Your task to perform on an android device: When is my next meeting? Image 0: 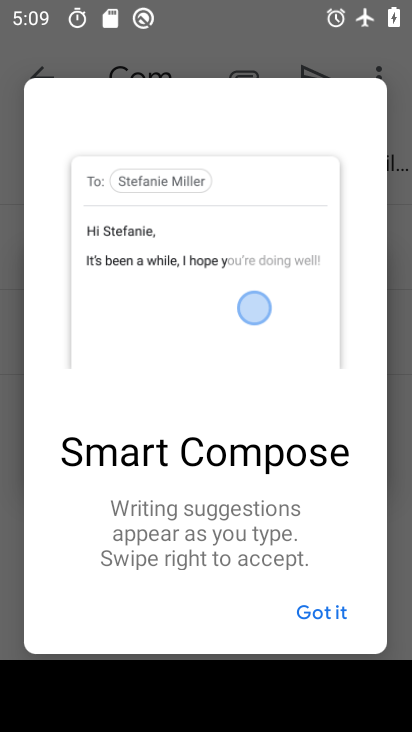
Step 0: click (326, 609)
Your task to perform on an android device: When is my next meeting? Image 1: 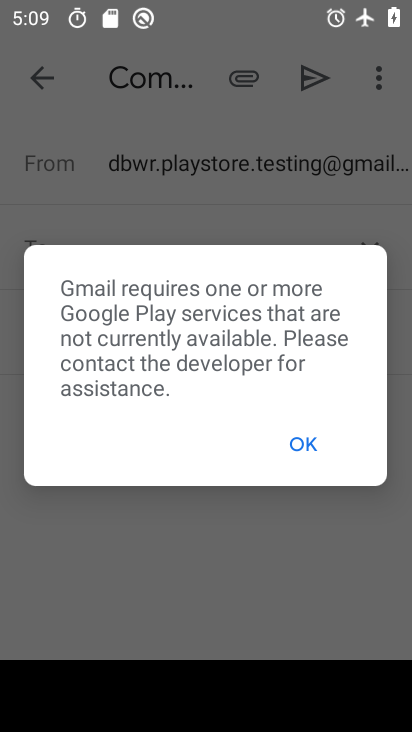
Step 1: press home button
Your task to perform on an android device: When is my next meeting? Image 2: 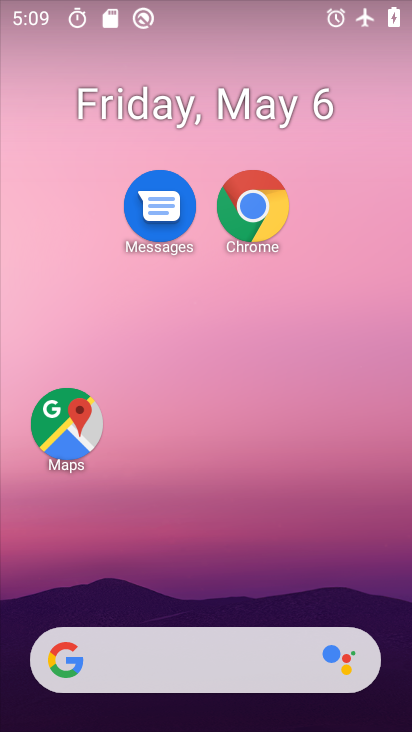
Step 2: drag from (170, 632) to (161, 215)
Your task to perform on an android device: When is my next meeting? Image 3: 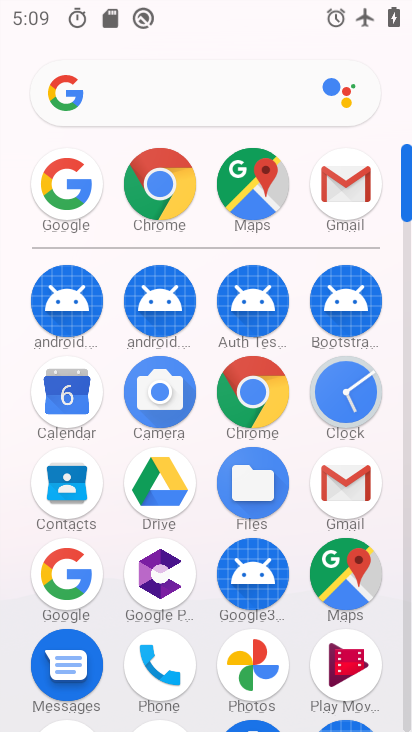
Step 3: click (54, 400)
Your task to perform on an android device: When is my next meeting? Image 4: 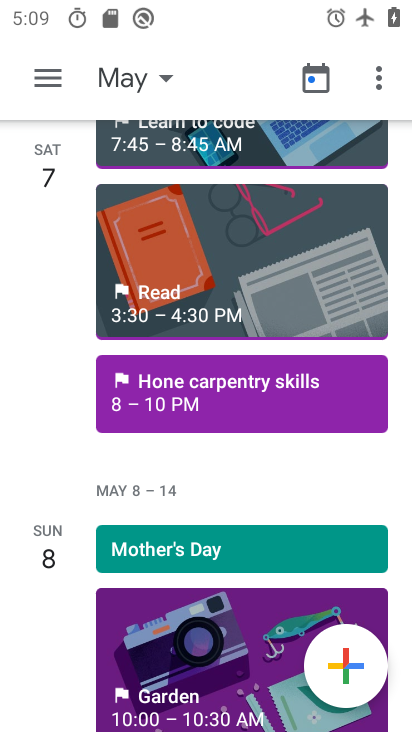
Step 4: click (40, 82)
Your task to perform on an android device: When is my next meeting? Image 5: 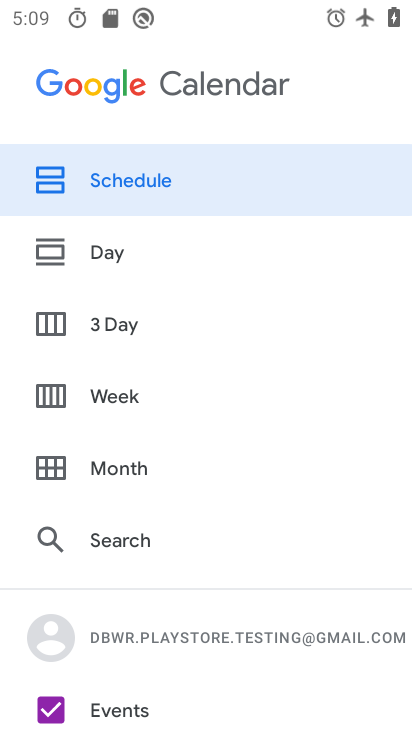
Step 5: click (125, 194)
Your task to perform on an android device: When is my next meeting? Image 6: 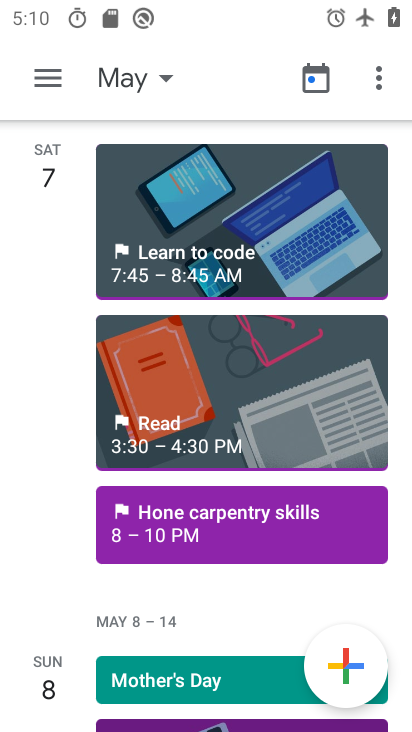
Step 6: task complete